Your task to perform on an android device: Open Google Maps Image 0: 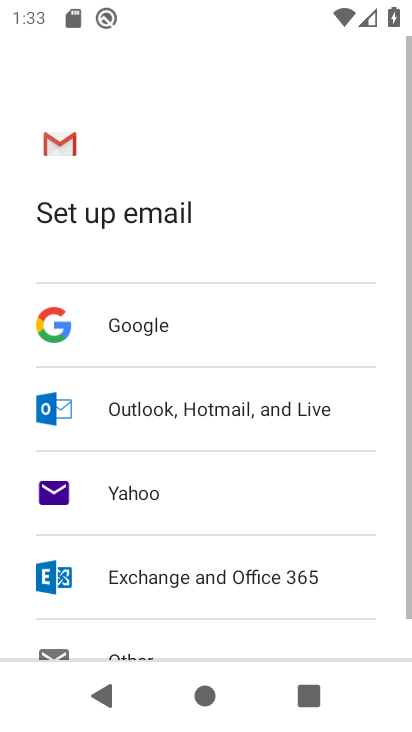
Step 0: press home button
Your task to perform on an android device: Open Google Maps Image 1: 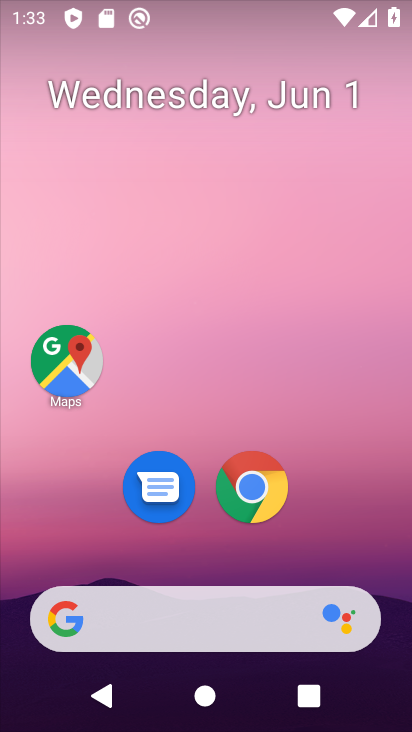
Step 1: drag from (358, 555) to (382, 179)
Your task to perform on an android device: Open Google Maps Image 2: 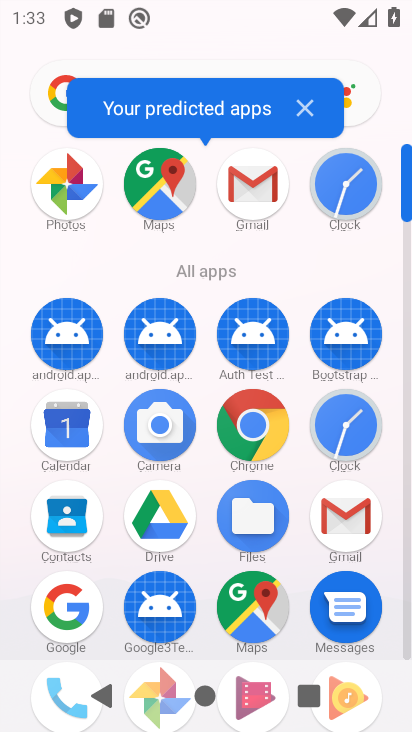
Step 2: click (273, 622)
Your task to perform on an android device: Open Google Maps Image 3: 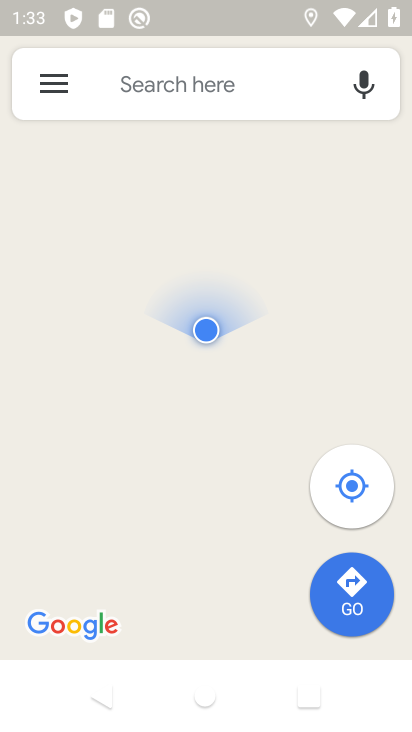
Step 3: task complete